Your task to perform on an android device: Show me popular games on the Play Store Image 0: 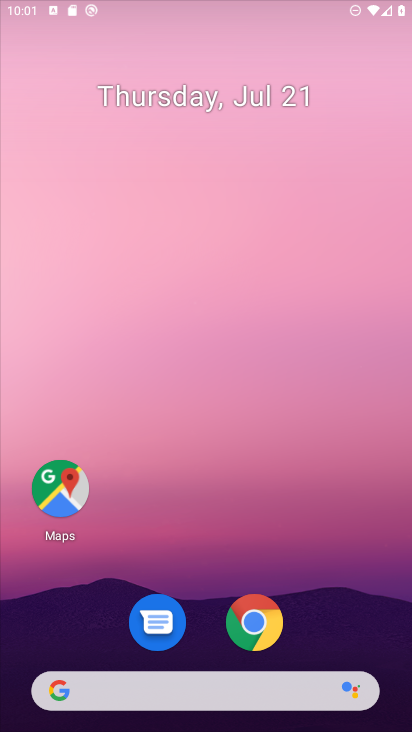
Step 0: drag from (129, 682) to (107, 97)
Your task to perform on an android device: Show me popular games on the Play Store Image 1: 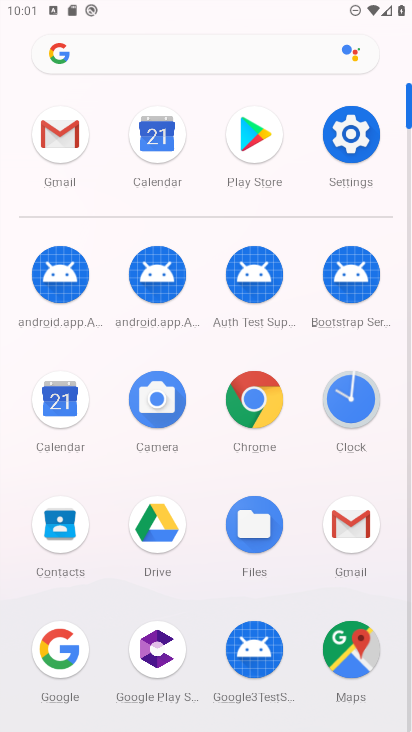
Step 1: click (249, 142)
Your task to perform on an android device: Show me popular games on the Play Store Image 2: 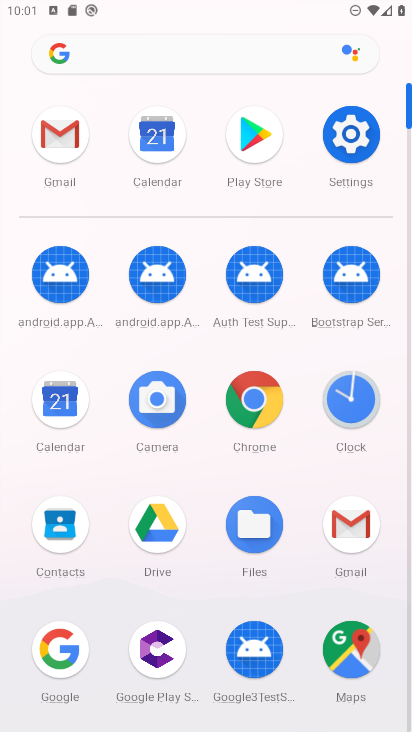
Step 2: click (249, 142)
Your task to perform on an android device: Show me popular games on the Play Store Image 3: 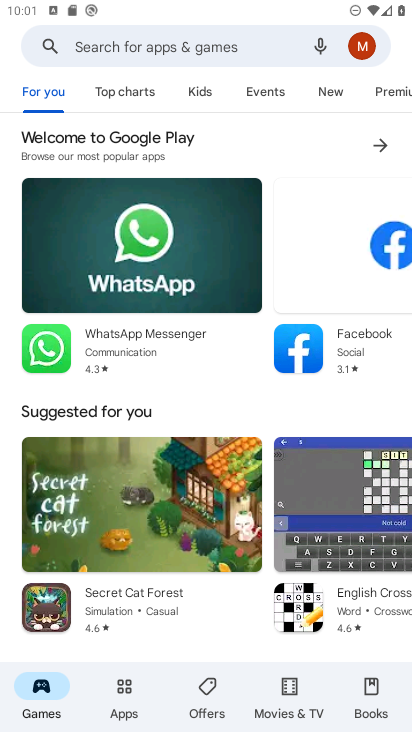
Step 3: task complete